Your task to perform on an android device: Search for pizza restaurants on Maps Image 0: 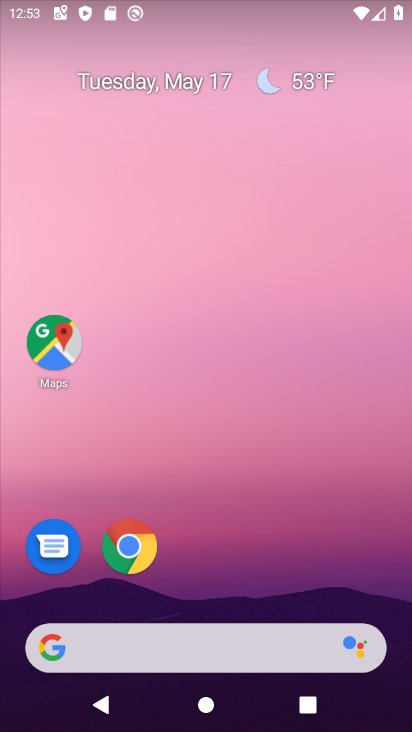
Step 0: click (59, 342)
Your task to perform on an android device: Search for pizza restaurants on Maps Image 1: 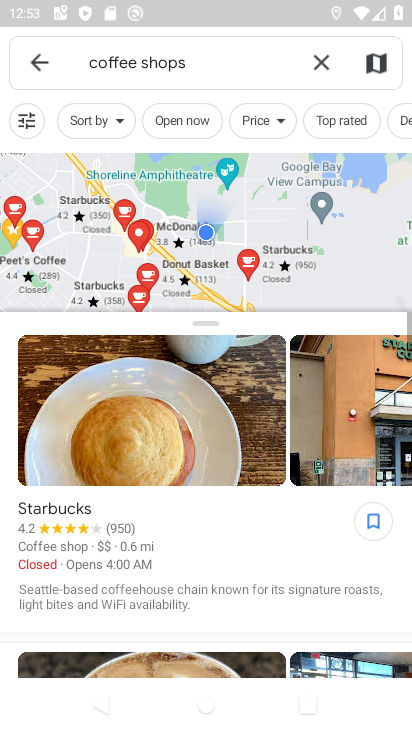
Step 1: click (312, 61)
Your task to perform on an android device: Search for pizza restaurants on Maps Image 2: 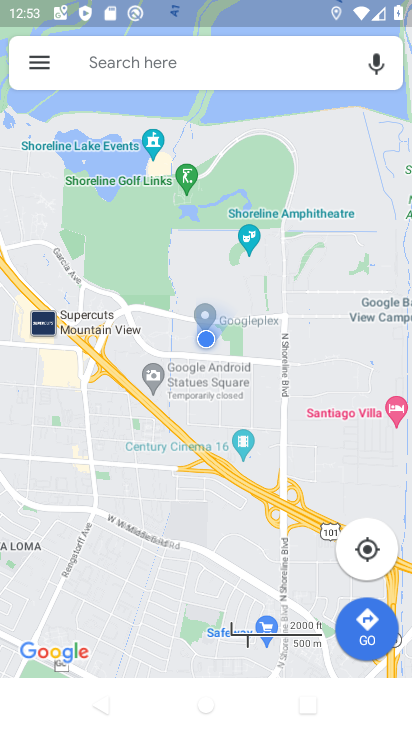
Step 2: click (273, 67)
Your task to perform on an android device: Search for pizza restaurants on Maps Image 3: 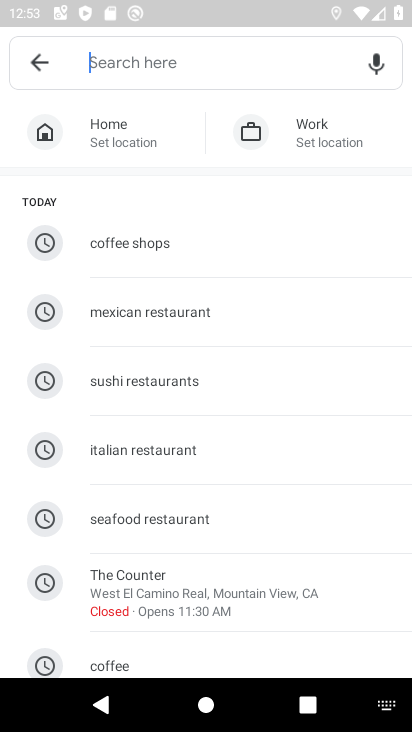
Step 3: type "pizza restaurants "
Your task to perform on an android device: Search for pizza restaurants on Maps Image 4: 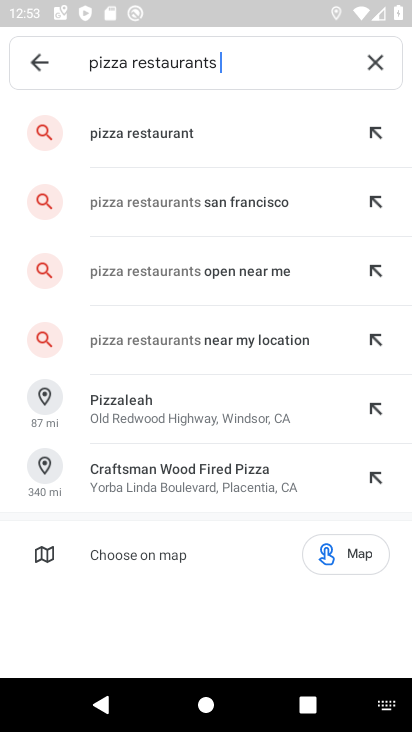
Step 4: click (186, 127)
Your task to perform on an android device: Search for pizza restaurants on Maps Image 5: 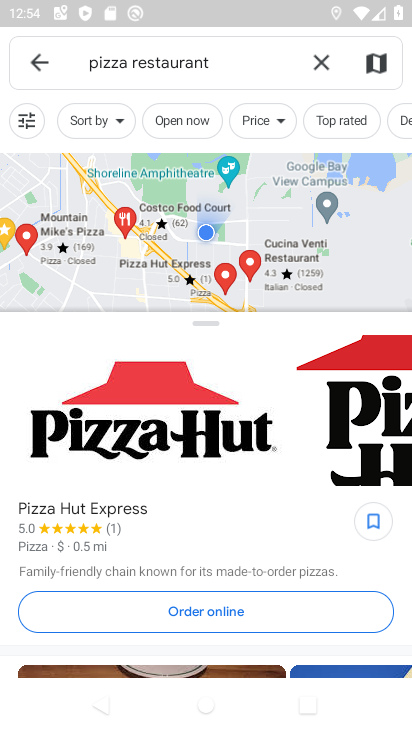
Step 5: task complete